Your task to perform on an android device: turn smart compose on in the gmail app Image 0: 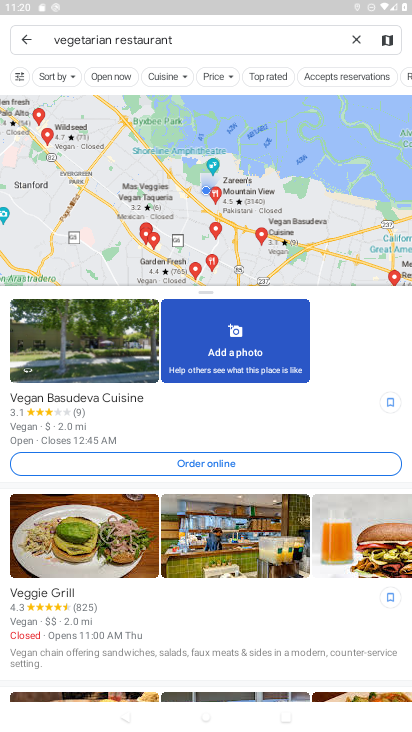
Step 0: press home button
Your task to perform on an android device: turn smart compose on in the gmail app Image 1: 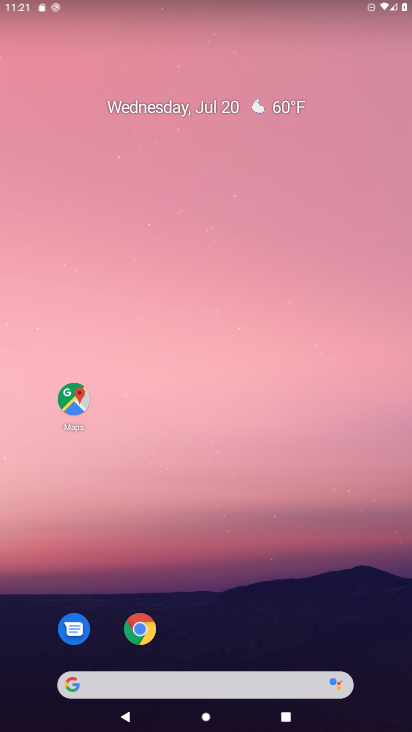
Step 1: drag from (264, 582) to (324, 70)
Your task to perform on an android device: turn smart compose on in the gmail app Image 2: 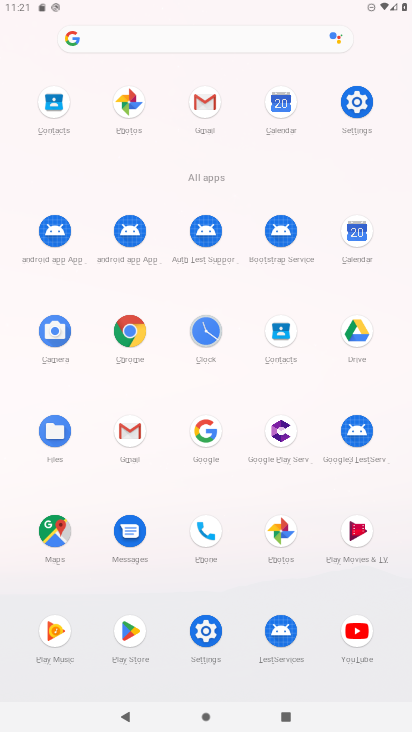
Step 2: click (206, 104)
Your task to perform on an android device: turn smart compose on in the gmail app Image 3: 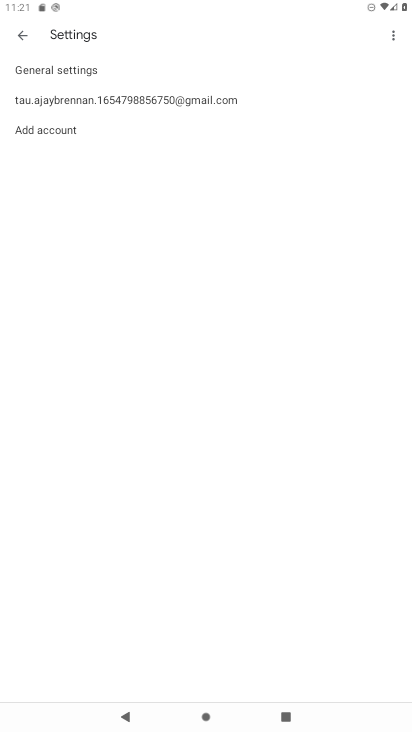
Step 3: click (23, 37)
Your task to perform on an android device: turn smart compose on in the gmail app Image 4: 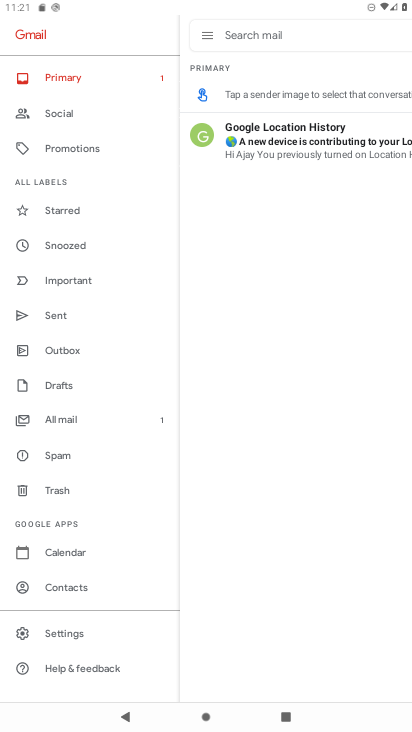
Step 4: click (91, 625)
Your task to perform on an android device: turn smart compose on in the gmail app Image 5: 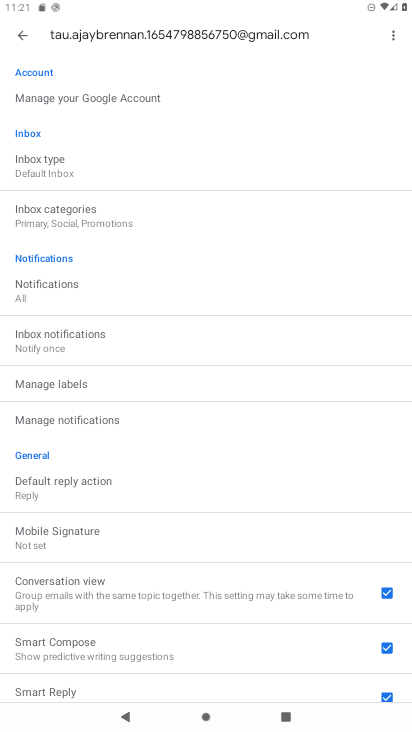
Step 5: task complete